Your task to perform on an android device: uninstall "Microsoft Outlook" Image 0: 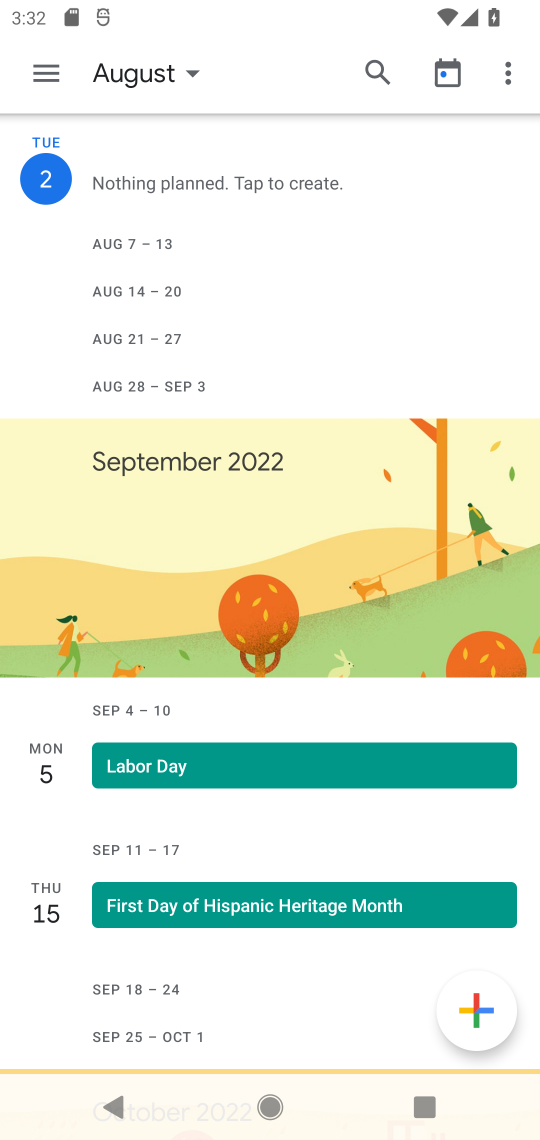
Step 0: press home button
Your task to perform on an android device: uninstall "Microsoft Outlook" Image 1: 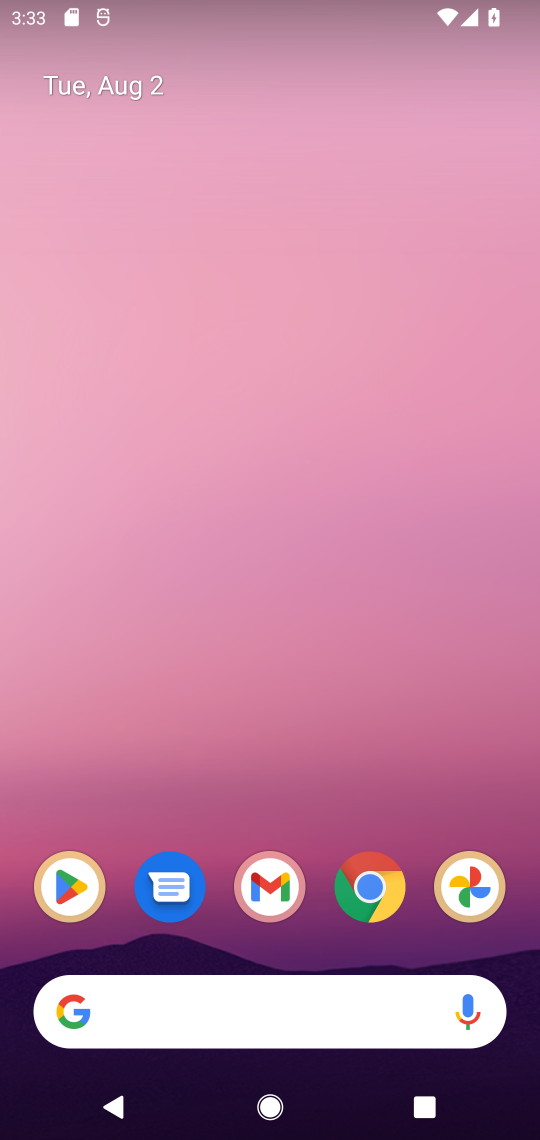
Step 1: click (59, 900)
Your task to perform on an android device: uninstall "Microsoft Outlook" Image 2: 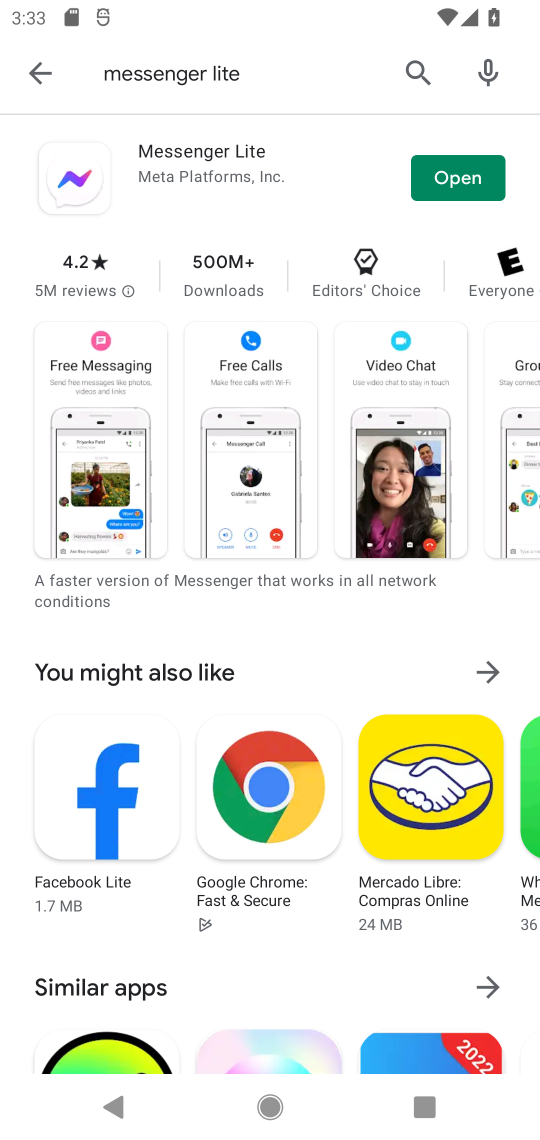
Step 2: click (28, 77)
Your task to perform on an android device: uninstall "Microsoft Outlook" Image 3: 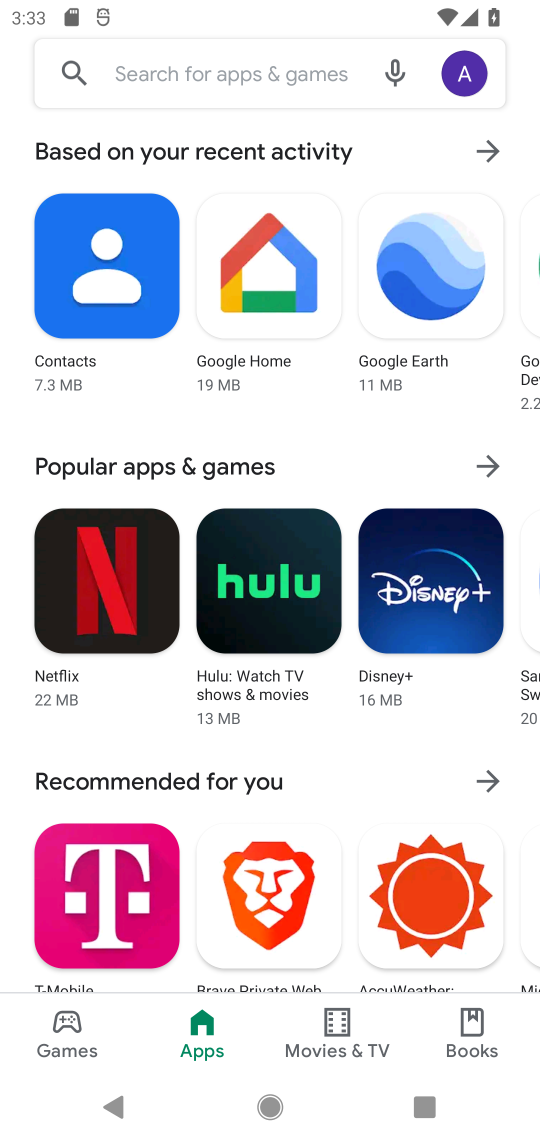
Step 3: click (146, 72)
Your task to perform on an android device: uninstall "Microsoft Outlook" Image 4: 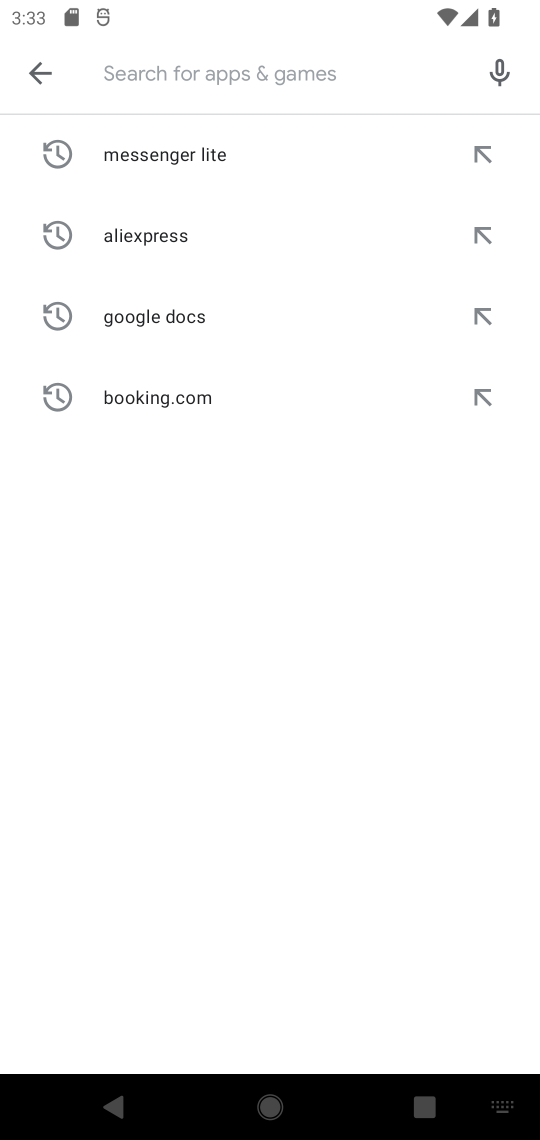
Step 4: type "Microsoft Outlook"
Your task to perform on an android device: uninstall "Microsoft Outlook" Image 5: 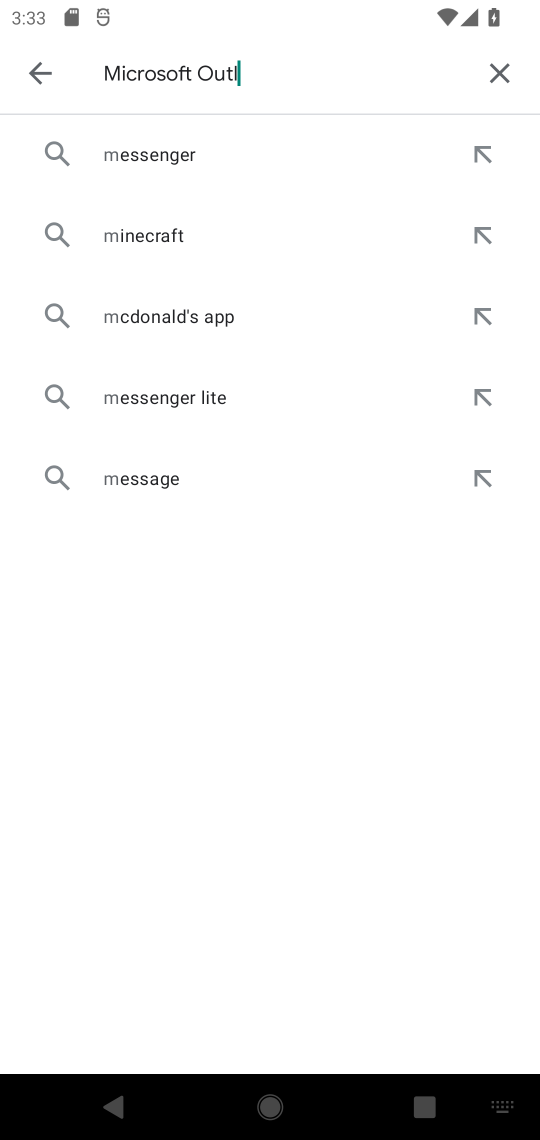
Step 5: type ""
Your task to perform on an android device: uninstall "Microsoft Outlook" Image 6: 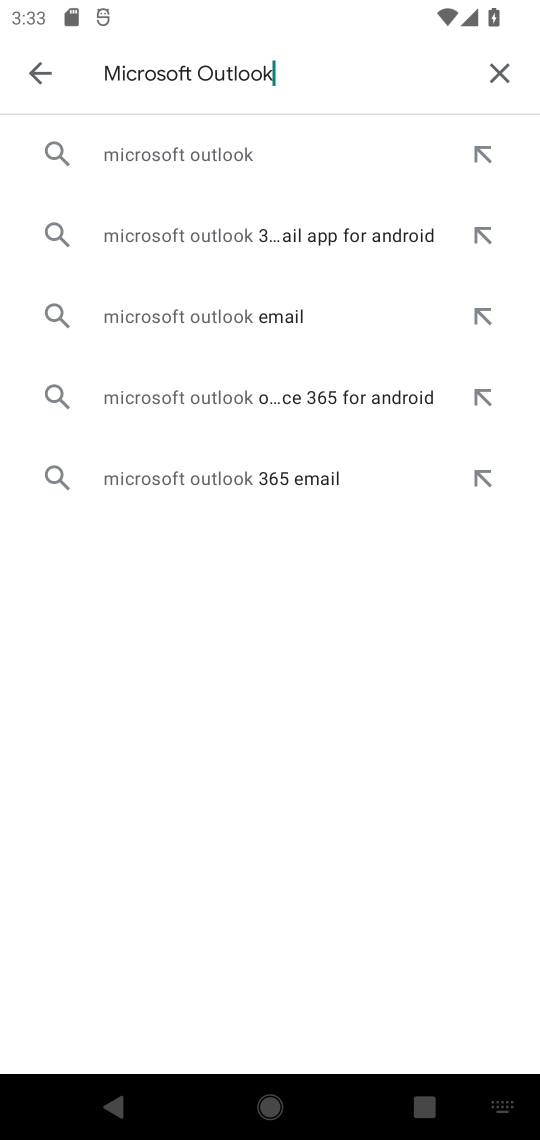
Step 6: click (180, 162)
Your task to perform on an android device: uninstall "Microsoft Outlook" Image 7: 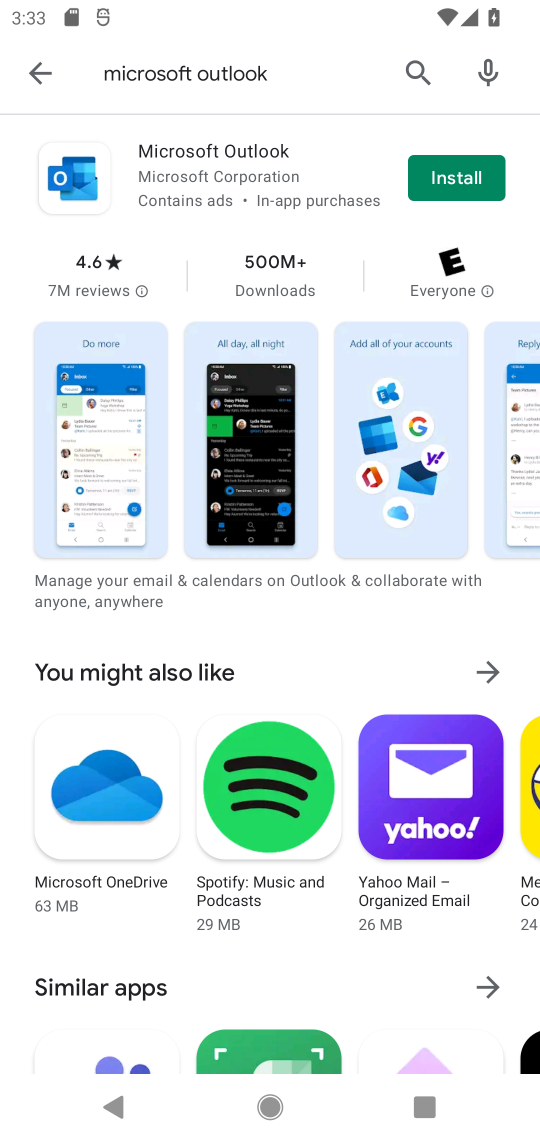
Step 7: task complete